Your task to perform on an android device: Go to notification settings Image 0: 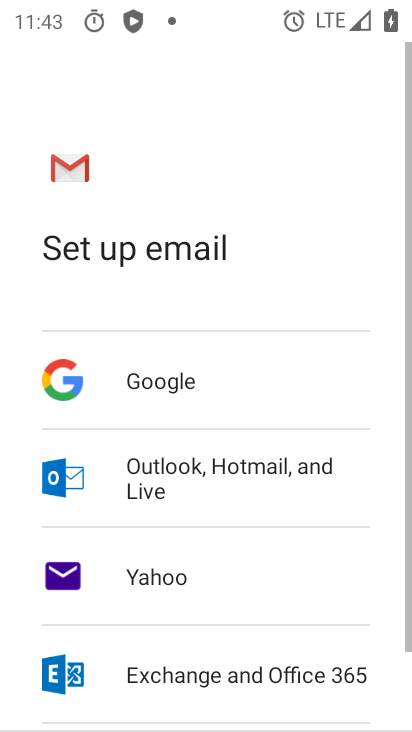
Step 0: press home button
Your task to perform on an android device: Go to notification settings Image 1: 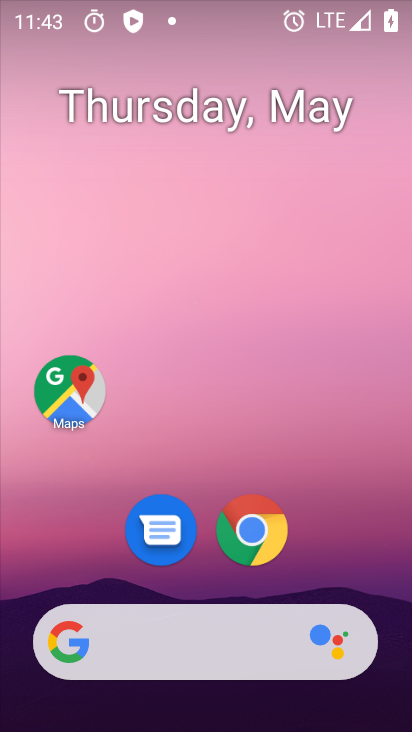
Step 1: drag from (305, 537) to (342, 74)
Your task to perform on an android device: Go to notification settings Image 2: 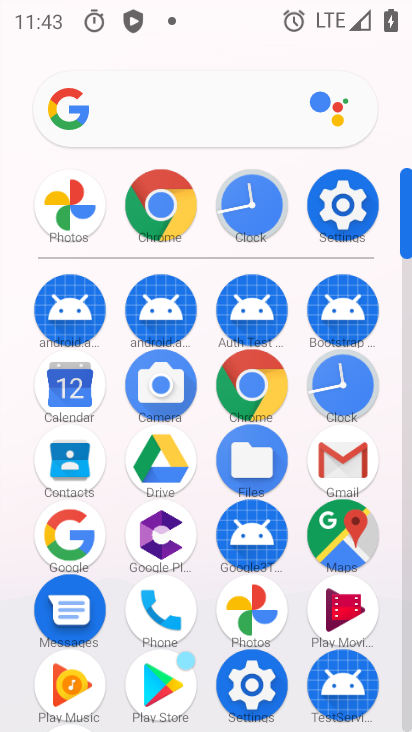
Step 2: click (339, 201)
Your task to perform on an android device: Go to notification settings Image 3: 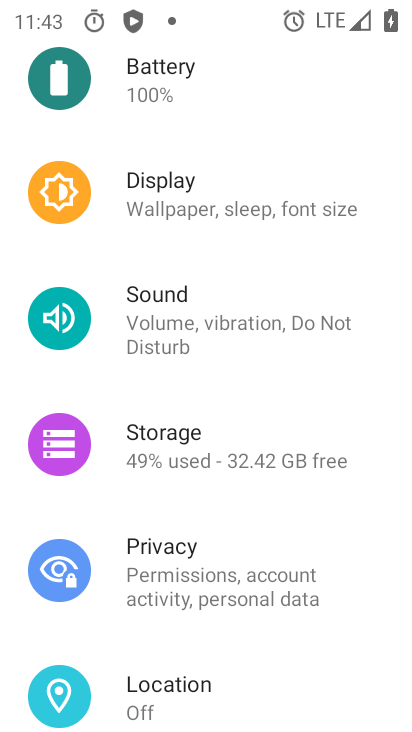
Step 3: drag from (233, 681) to (247, 729)
Your task to perform on an android device: Go to notification settings Image 4: 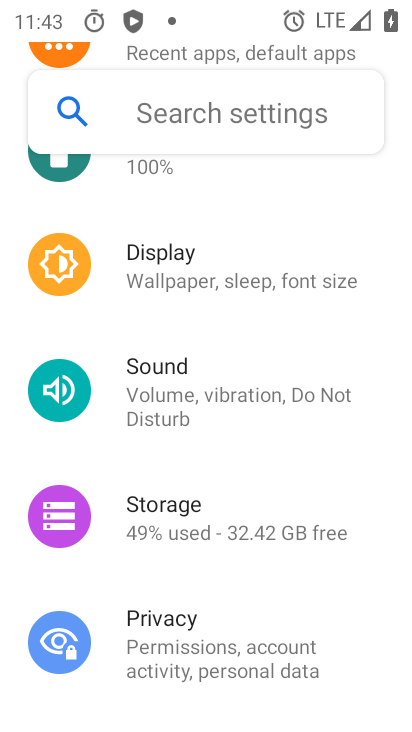
Step 4: drag from (217, 379) to (285, 692)
Your task to perform on an android device: Go to notification settings Image 5: 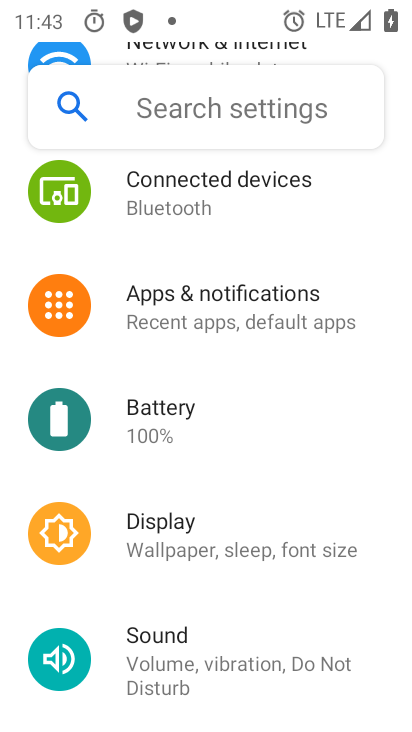
Step 5: click (233, 289)
Your task to perform on an android device: Go to notification settings Image 6: 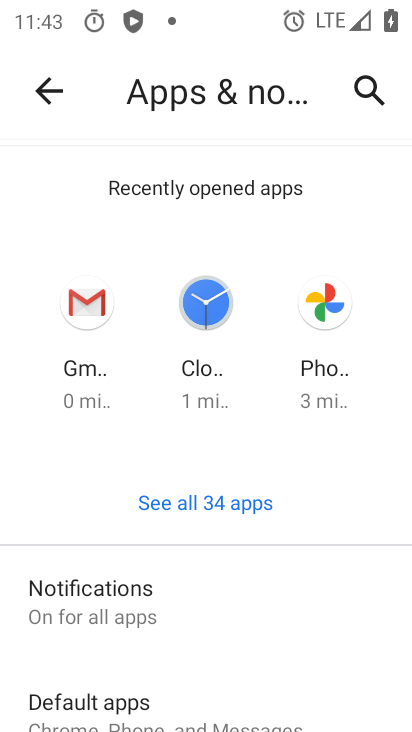
Step 6: drag from (172, 624) to (229, 288)
Your task to perform on an android device: Go to notification settings Image 7: 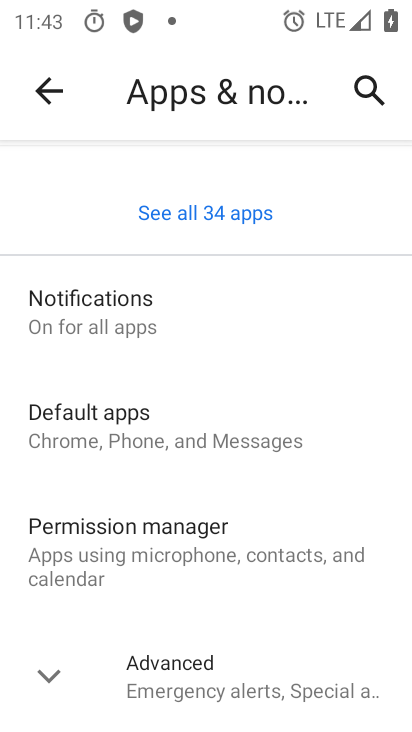
Step 7: click (156, 314)
Your task to perform on an android device: Go to notification settings Image 8: 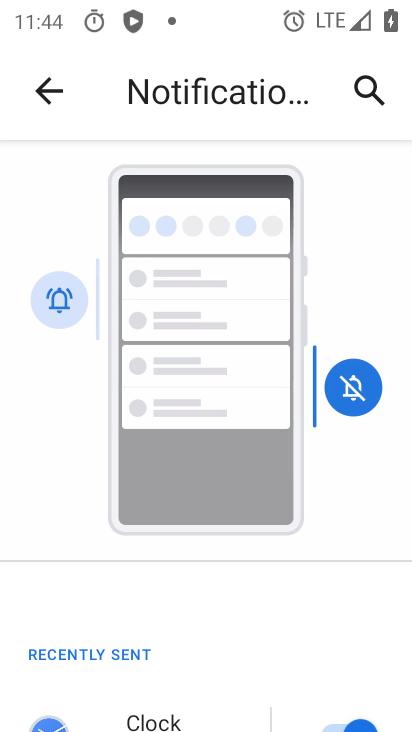
Step 8: task complete